Your task to perform on an android device: View the shopping cart on walmart. Image 0: 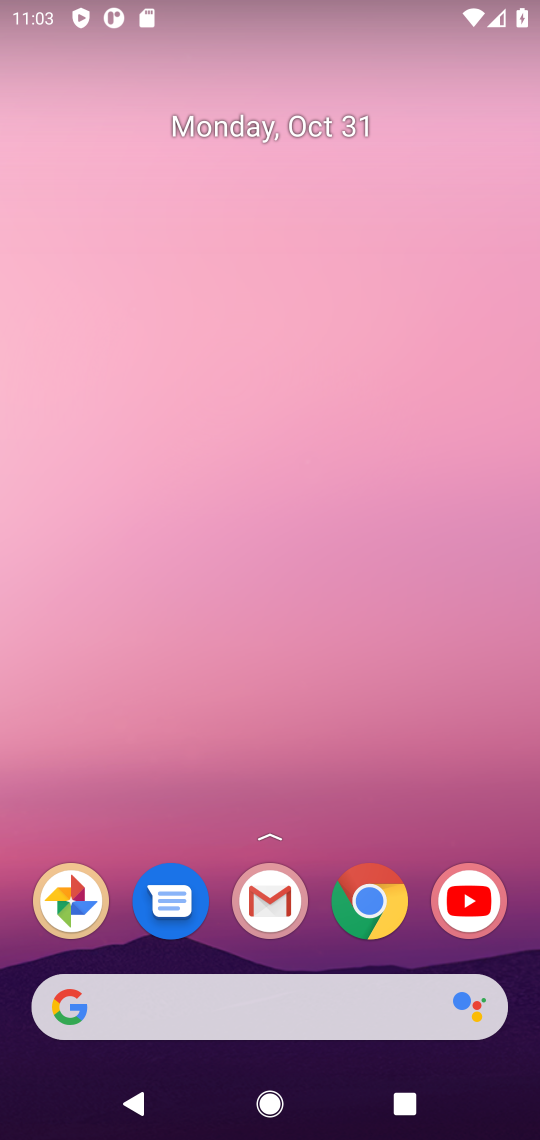
Step 0: drag from (153, 980) to (255, 251)
Your task to perform on an android device: View the shopping cart on walmart. Image 1: 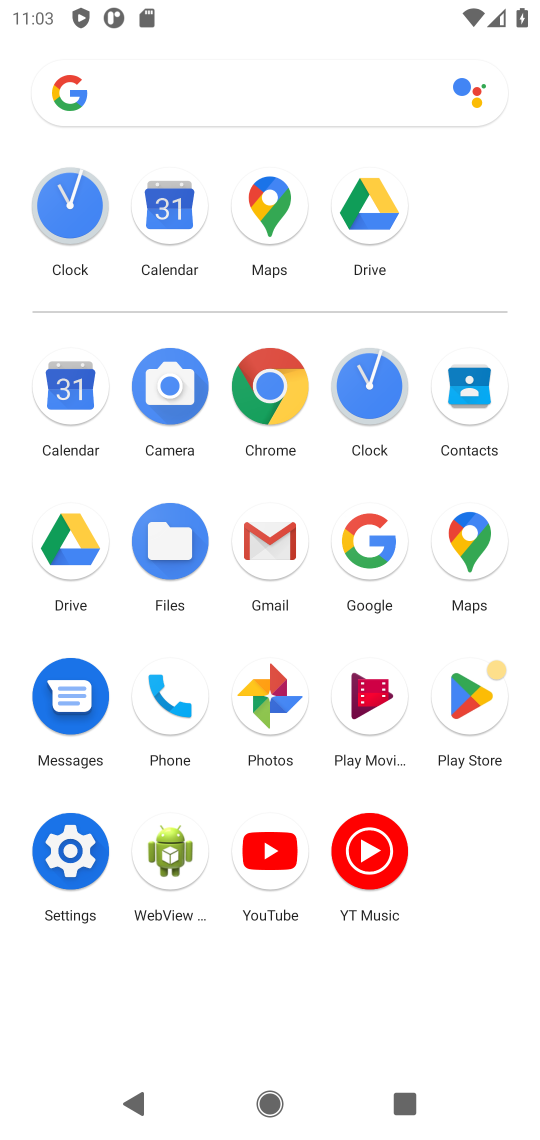
Step 1: click (363, 534)
Your task to perform on an android device: View the shopping cart on walmart. Image 2: 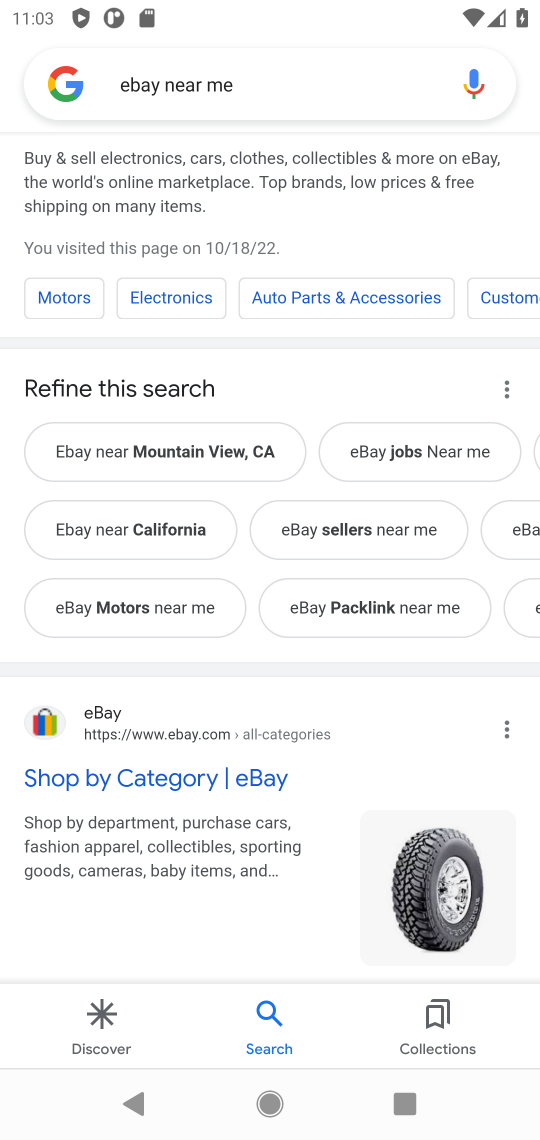
Step 2: click (258, 80)
Your task to perform on an android device: View the shopping cart on walmart. Image 3: 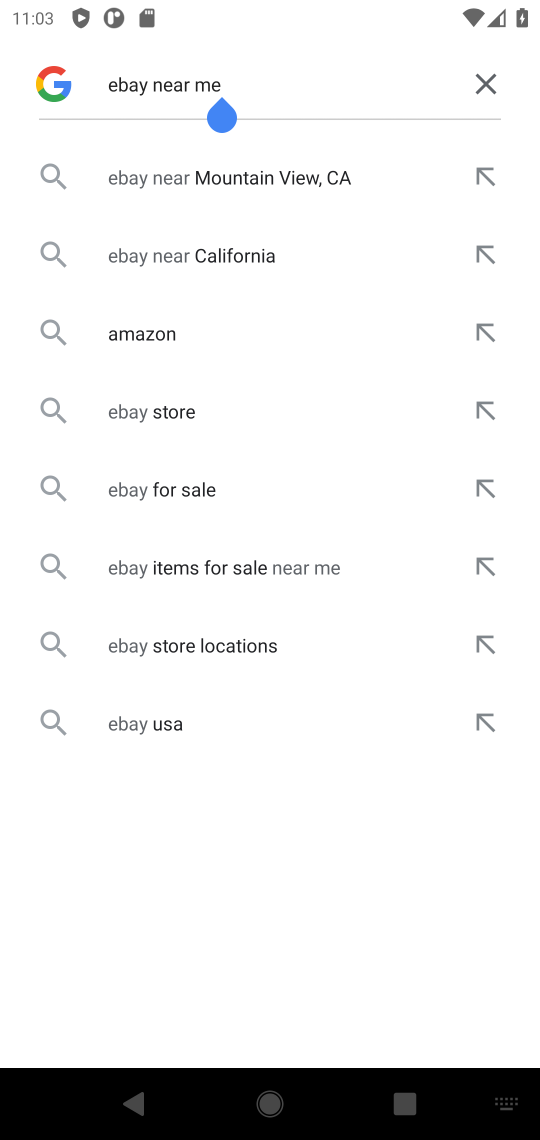
Step 3: click (494, 79)
Your task to perform on an android device: View the shopping cart on walmart. Image 4: 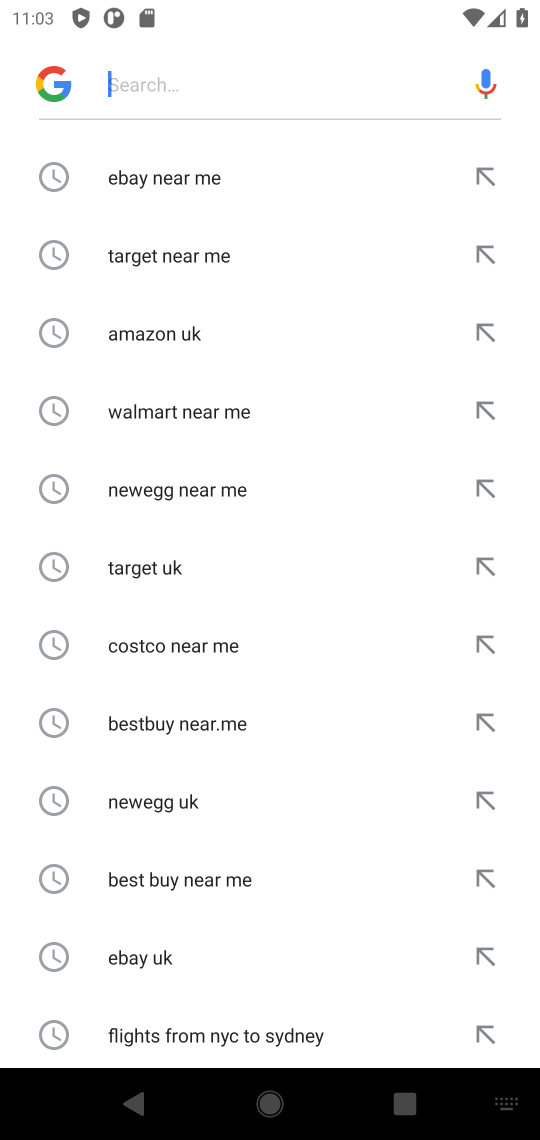
Step 4: click (181, 73)
Your task to perform on an android device: View the shopping cart on walmart. Image 5: 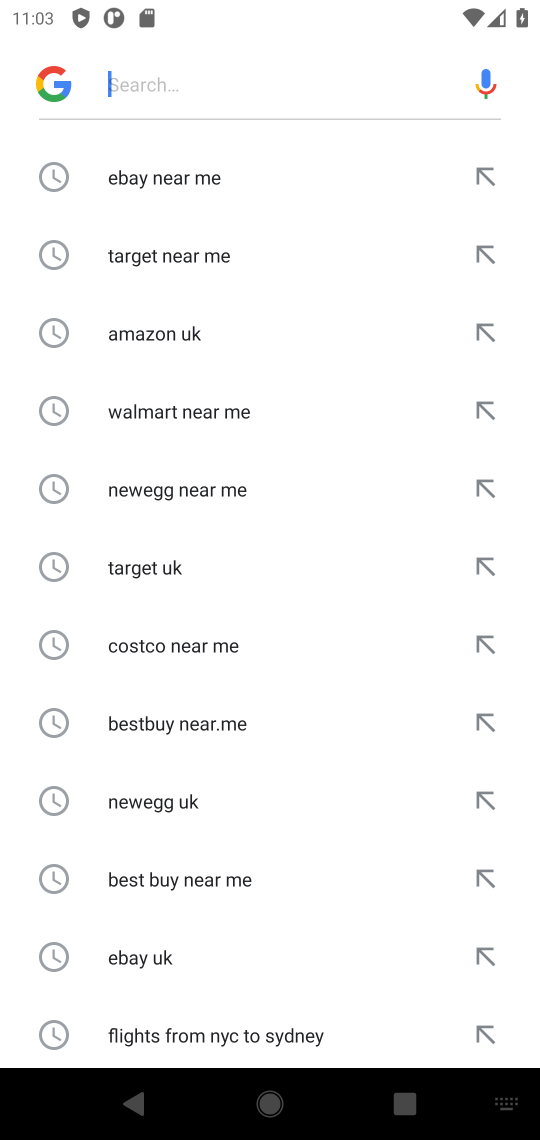
Step 5: type "walmart "
Your task to perform on an android device: View the shopping cart on walmart. Image 6: 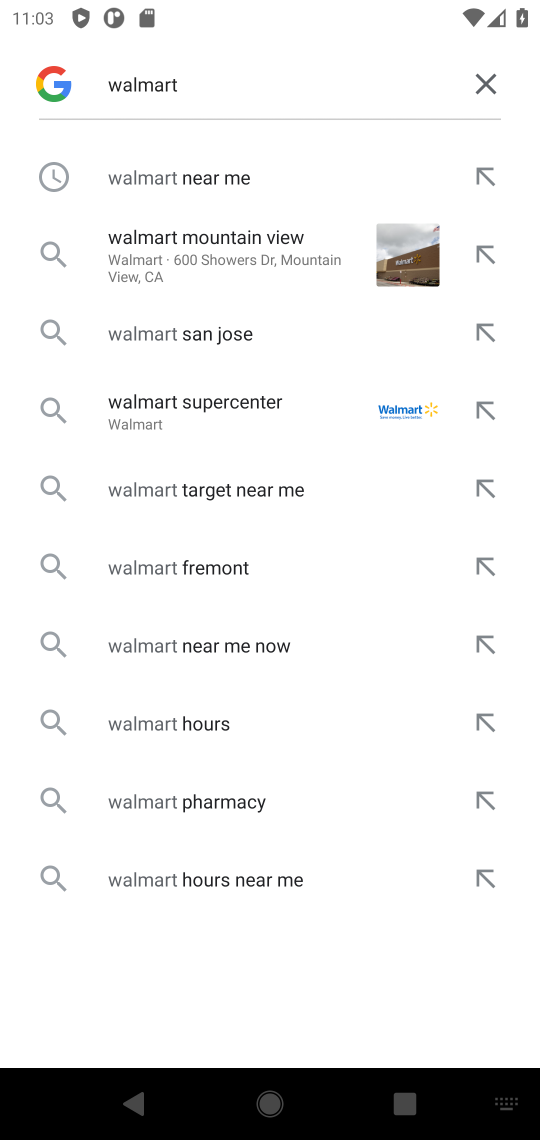
Step 6: click (160, 179)
Your task to perform on an android device: View the shopping cart on walmart. Image 7: 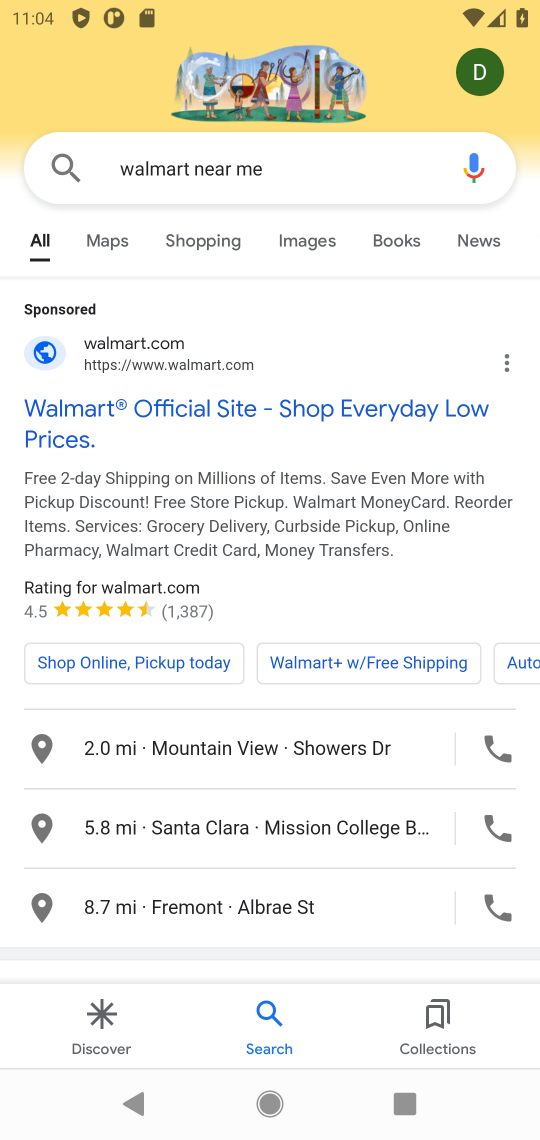
Step 7: drag from (230, 909) to (266, 316)
Your task to perform on an android device: View the shopping cart on walmart. Image 8: 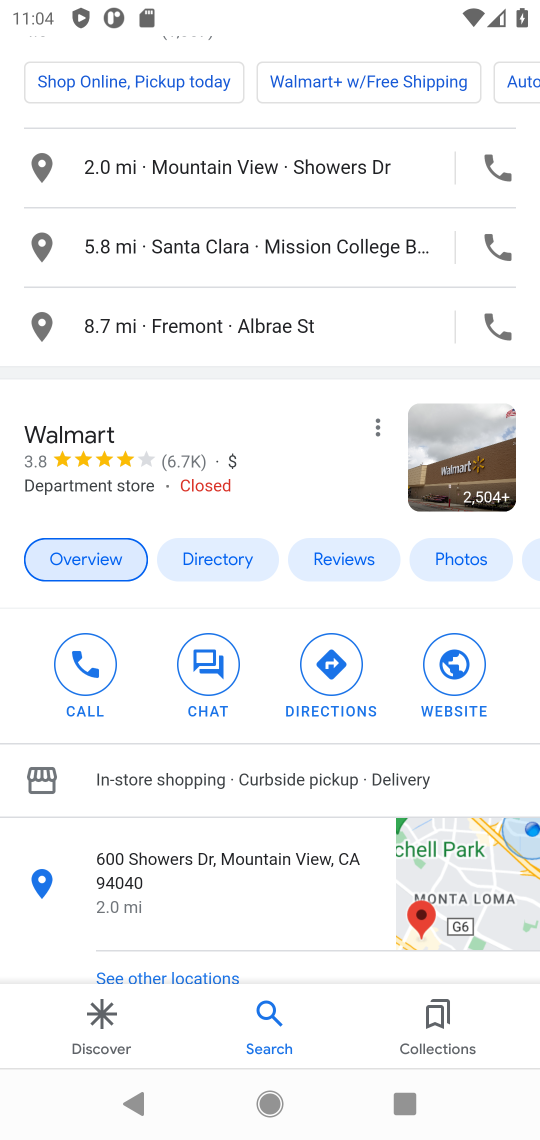
Step 8: drag from (224, 930) to (221, 261)
Your task to perform on an android device: View the shopping cart on walmart. Image 9: 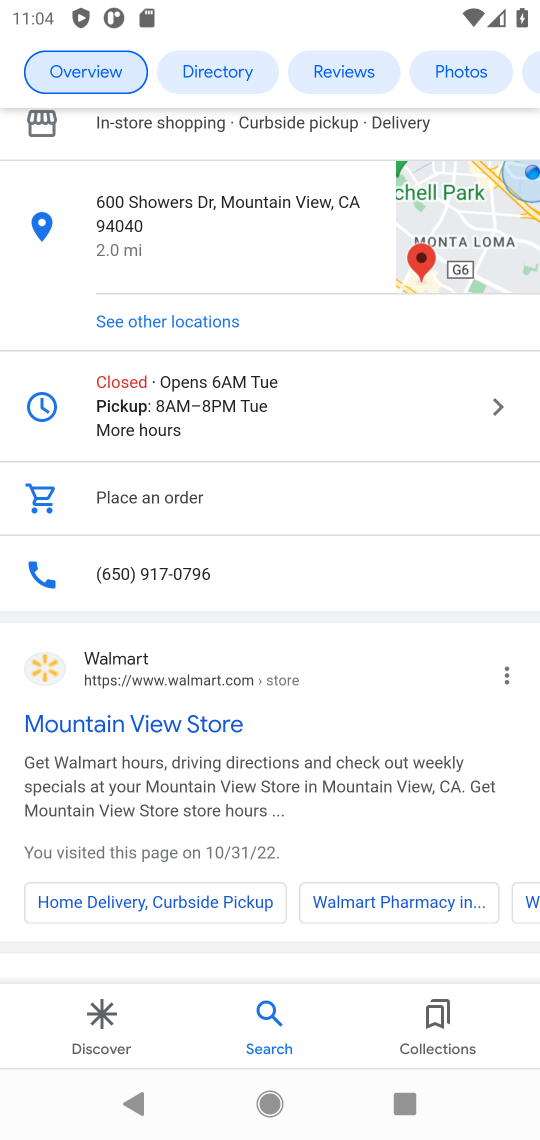
Step 9: click (34, 664)
Your task to perform on an android device: View the shopping cart on walmart. Image 10: 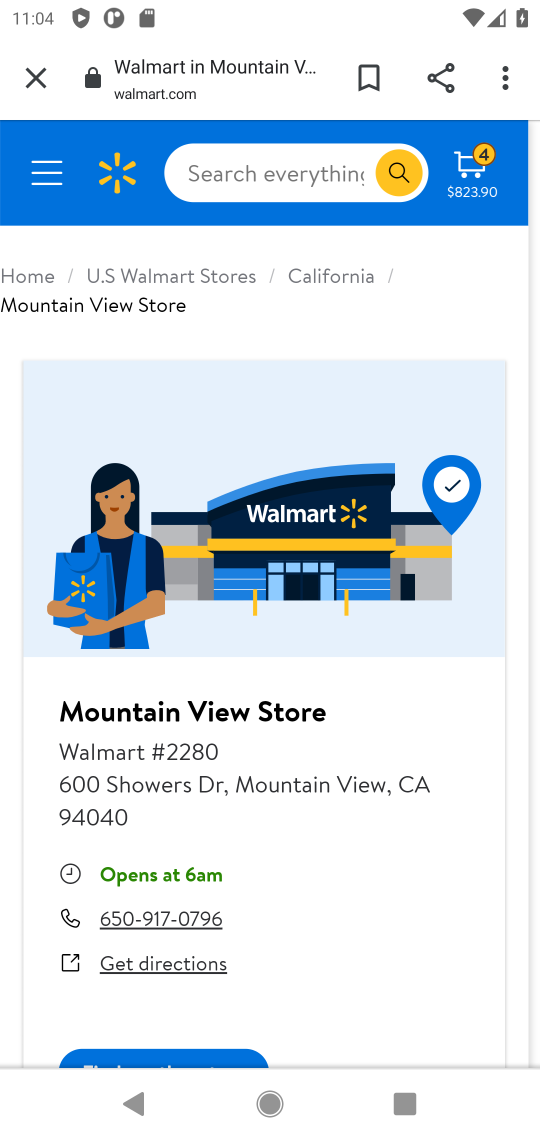
Step 10: click (469, 165)
Your task to perform on an android device: View the shopping cart on walmart. Image 11: 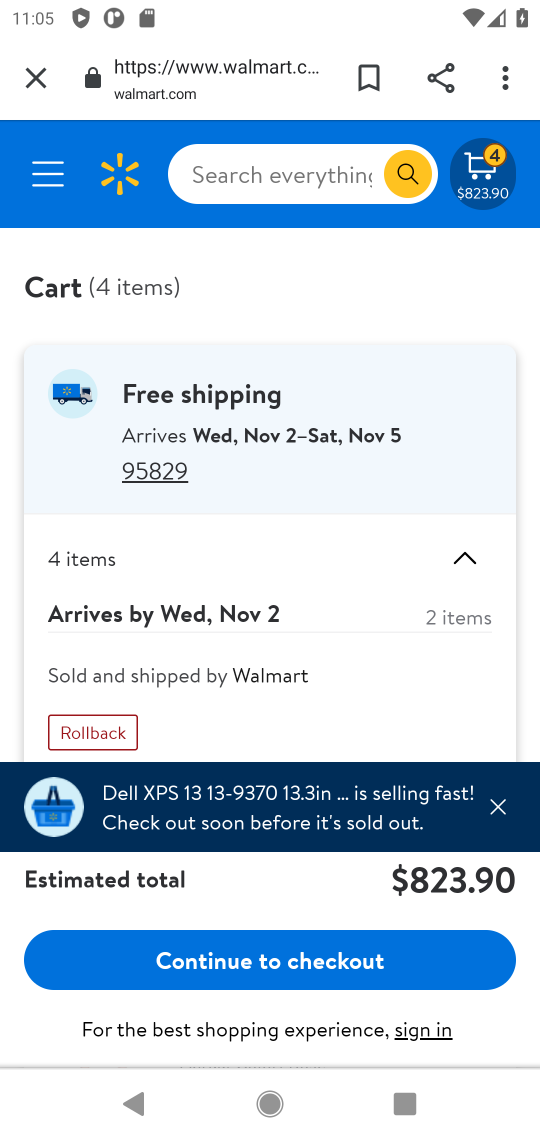
Step 11: click (502, 806)
Your task to perform on an android device: View the shopping cart on walmart. Image 12: 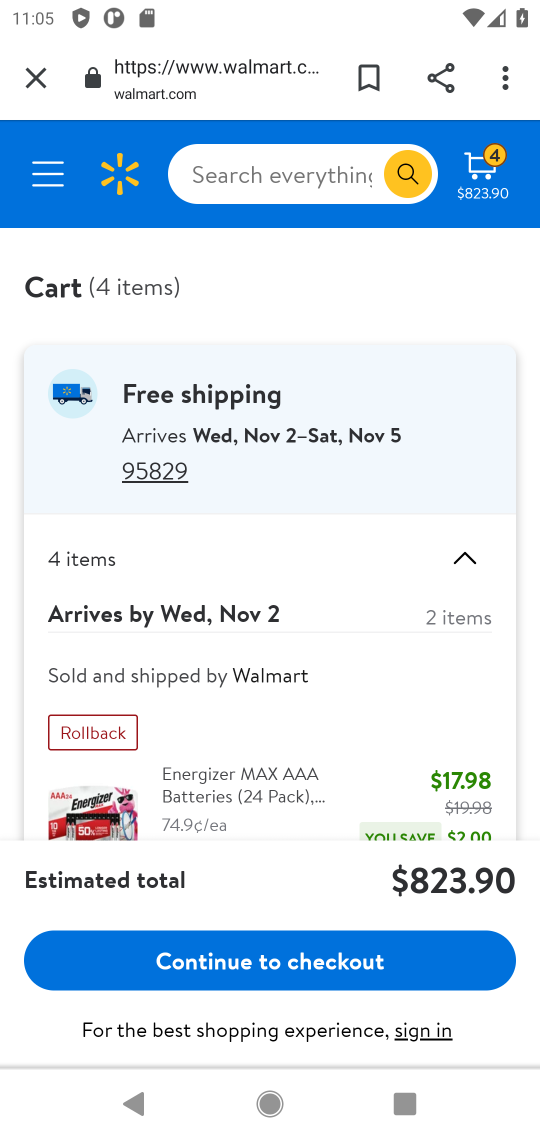
Step 12: drag from (321, 839) to (374, 344)
Your task to perform on an android device: View the shopping cart on walmart. Image 13: 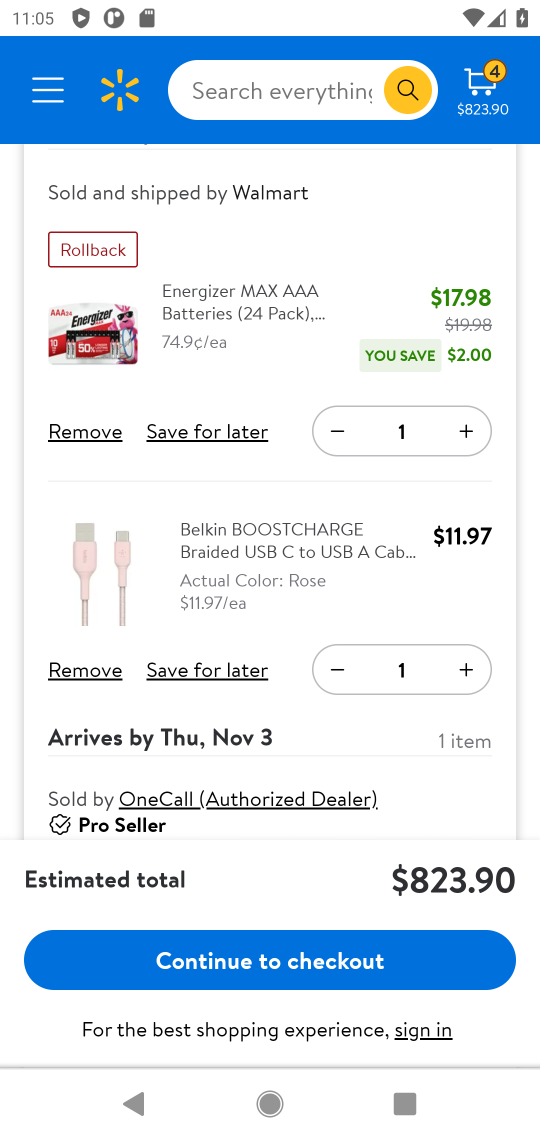
Step 13: click (86, 428)
Your task to perform on an android device: View the shopping cart on walmart. Image 14: 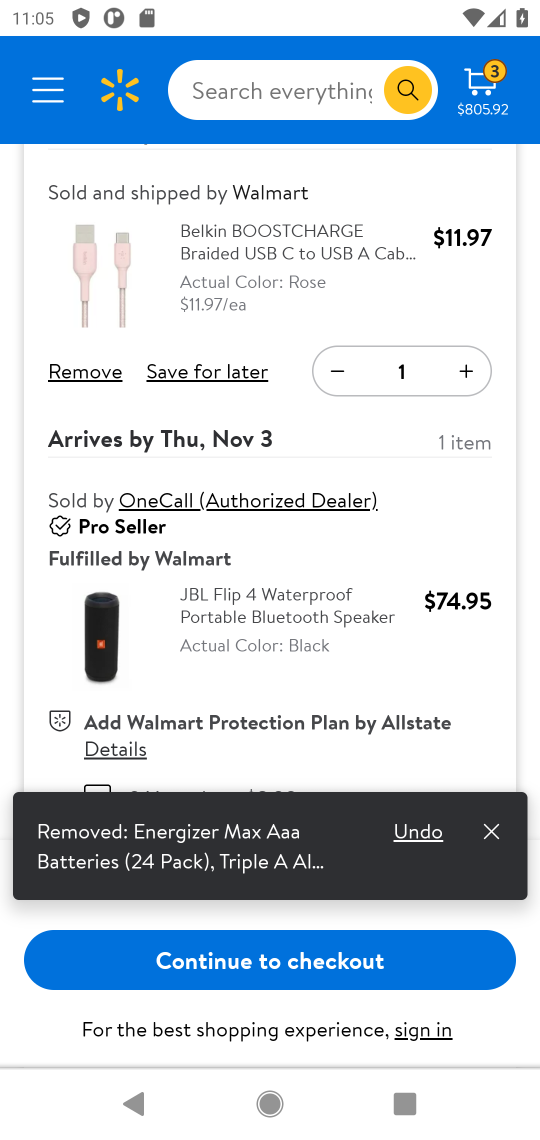
Step 14: click (71, 336)
Your task to perform on an android device: View the shopping cart on walmart. Image 15: 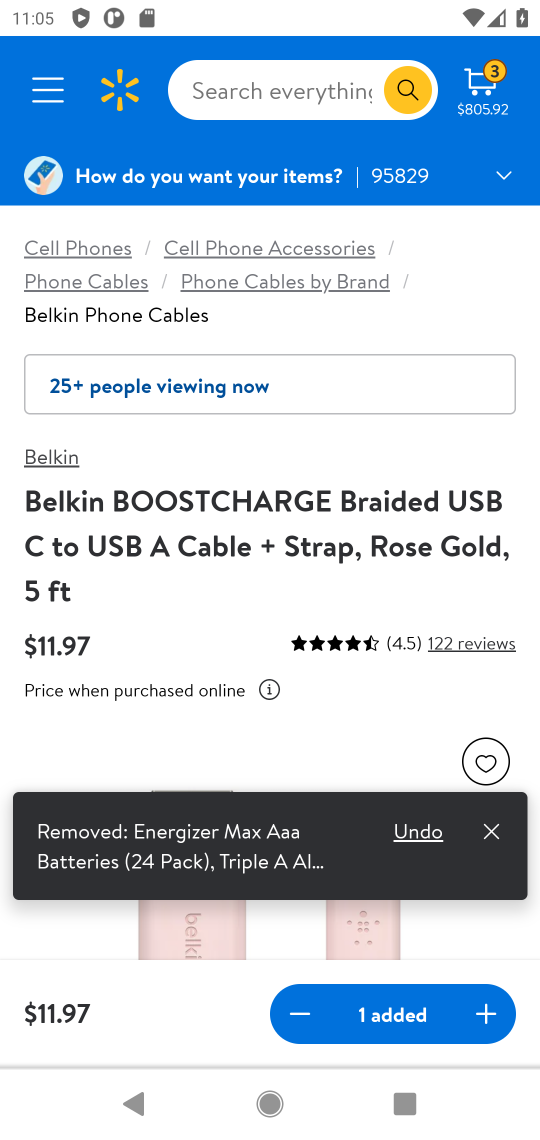
Step 15: click (466, 86)
Your task to perform on an android device: View the shopping cart on walmart. Image 16: 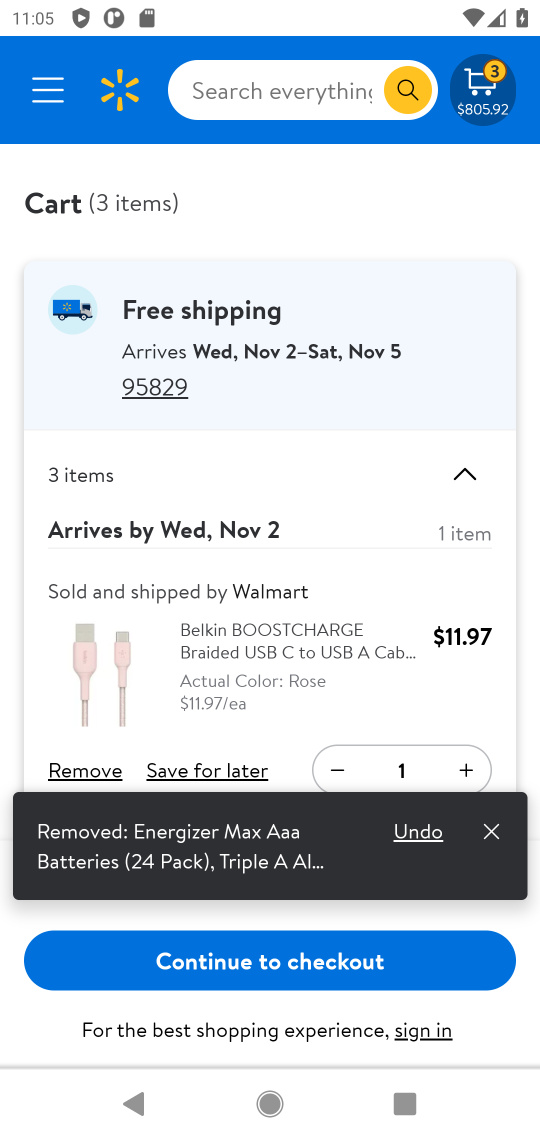
Step 16: task complete